Your task to perform on an android device: What is the news today? Image 0: 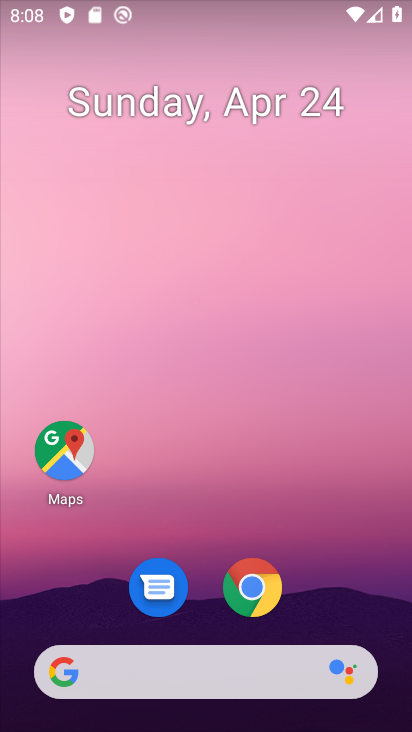
Step 0: drag from (335, 561) to (330, 124)
Your task to perform on an android device: What is the news today? Image 1: 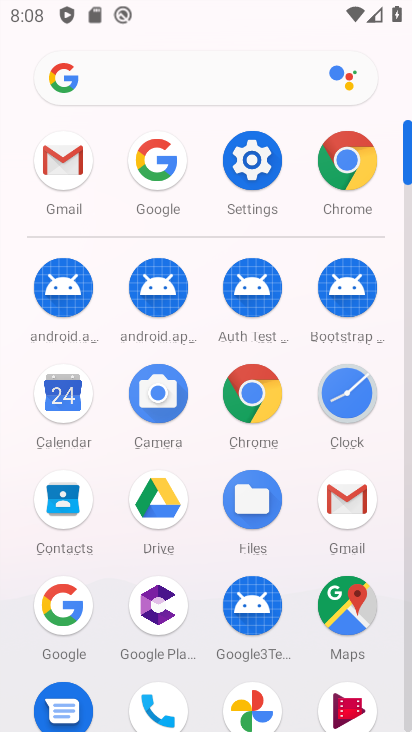
Step 1: click (262, 400)
Your task to perform on an android device: What is the news today? Image 2: 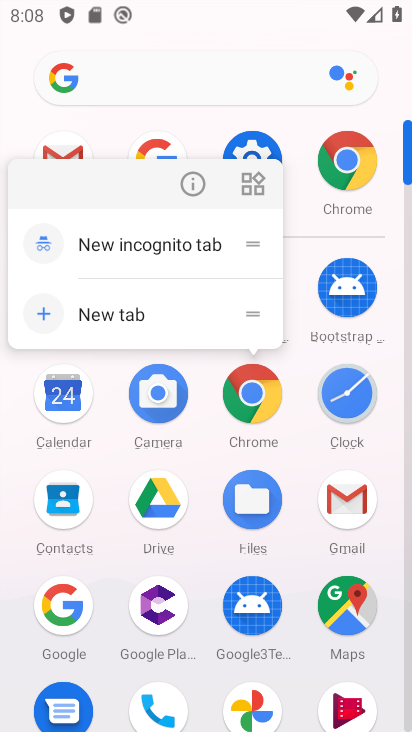
Step 2: click (262, 403)
Your task to perform on an android device: What is the news today? Image 3: 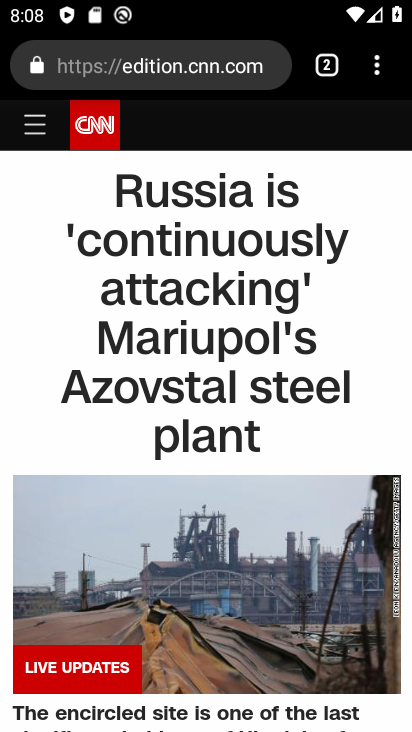
Step 3: click (331, 70)
Your task to perform on an android device: What is the news today? Image 4: 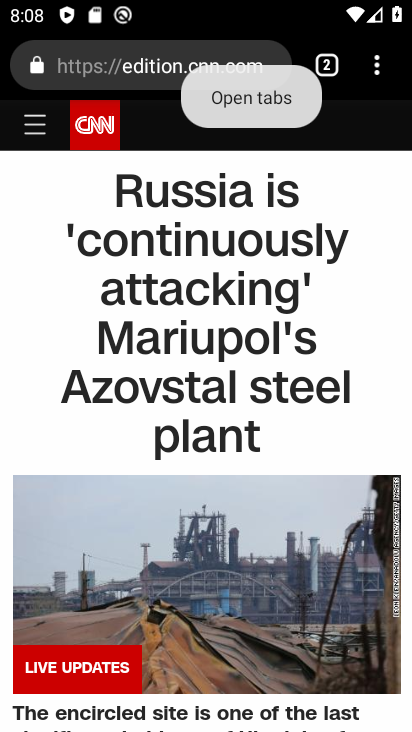
Step 4: click (327, 74)
Your task to perform on an android device: What is the news today? Image 5: 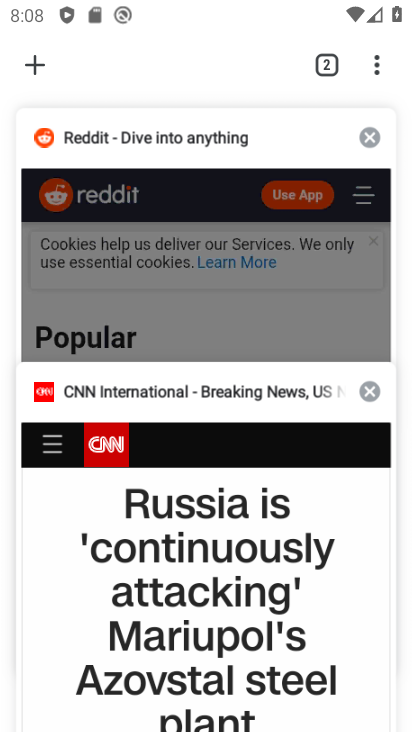
Step 5: click (34, 68)
Your task to perform on an android device: What is the news today? Image 6: 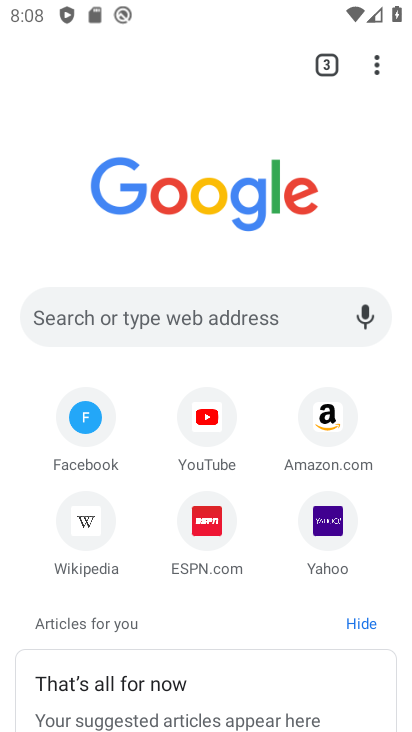
Step 6: click (146, 310)
Your task to perform on an android device: What is the news today? Image 7: 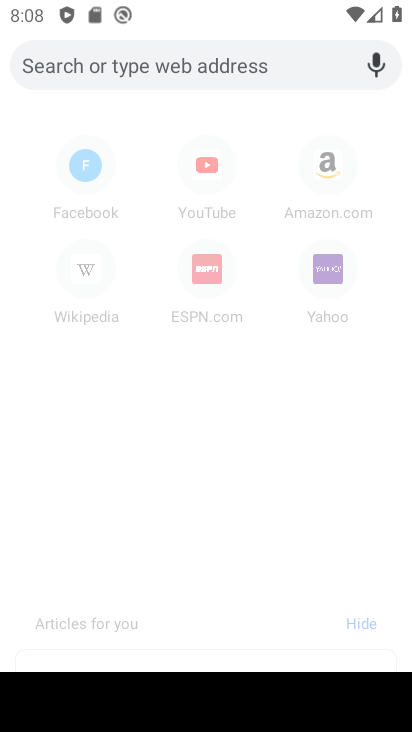
Step 7: click (209, 71)
Your task to perform on an android device: What is the news today? Image 8: 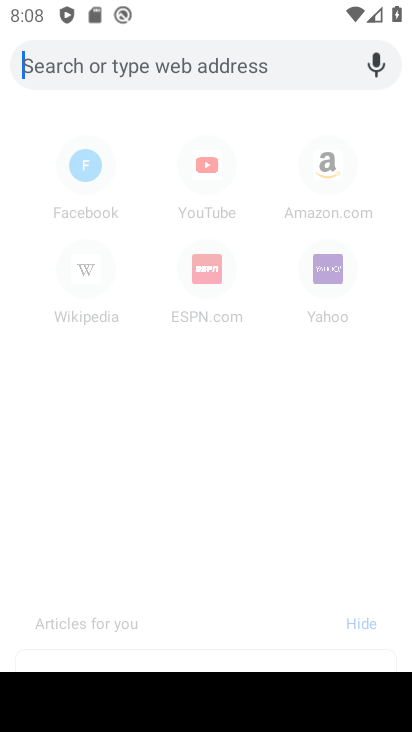
Step 8: type "news today"
Your task to perform on an android device: What is the news today? Image 9: 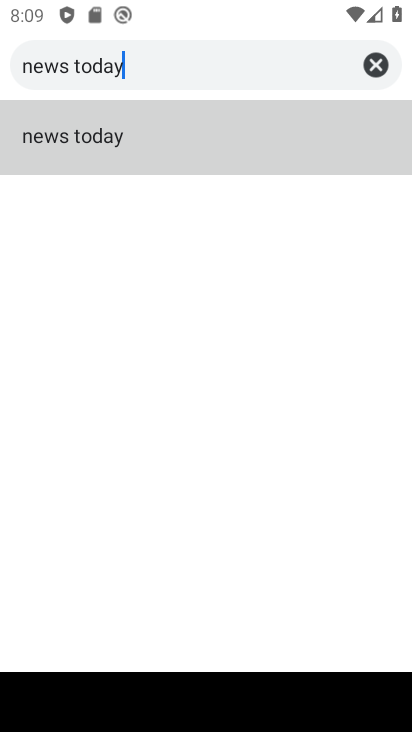
Step 9: click (97, 139)
Your task to perform on an android device: What is the news today? Image 10: 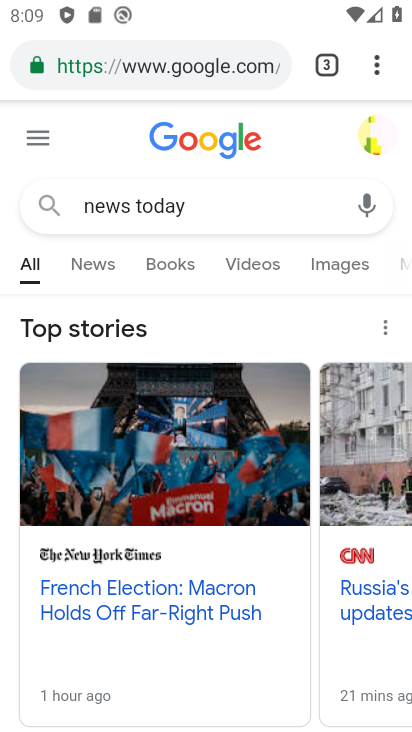
Step 10: task complete